Your task to perform on an android device: Open display settings Image 0: 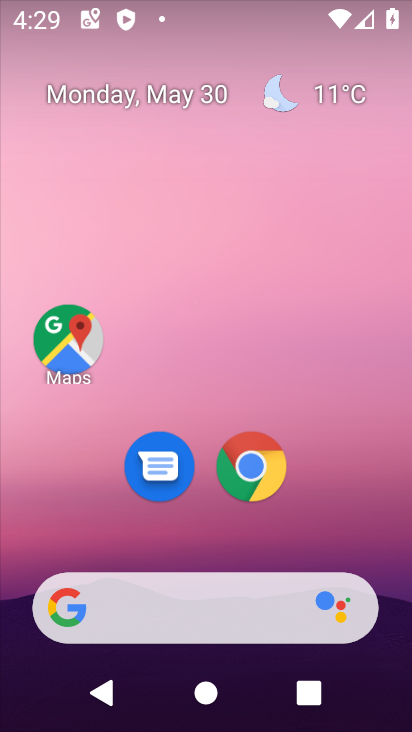
Step 0: drag from (374, 509) to (296, 160)
Your task to perform on an android device: Open display settings Image 1: 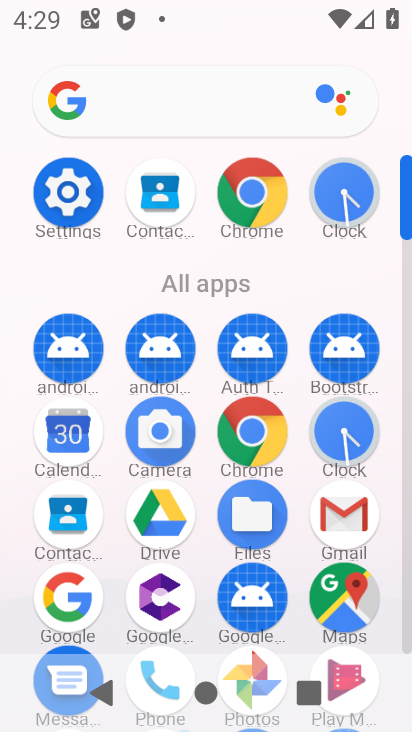
Step 1: click (73, 180)
Your task to perform on an android device: Open display settings Image 2: 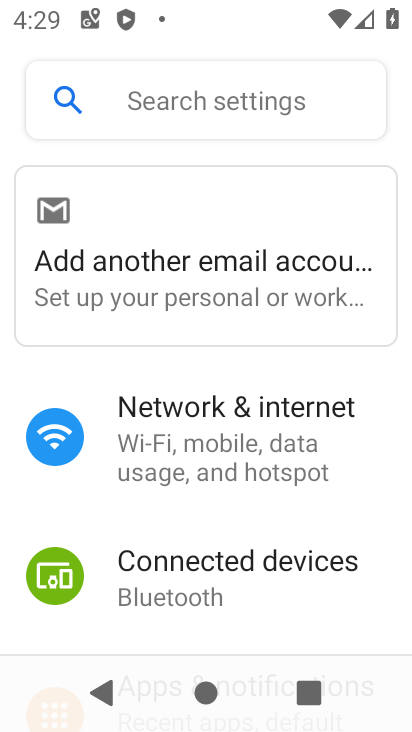
Step 2: drag from (274, 522) to (300, 161)
Your task to perform on an android device: Open display settings Image 3: 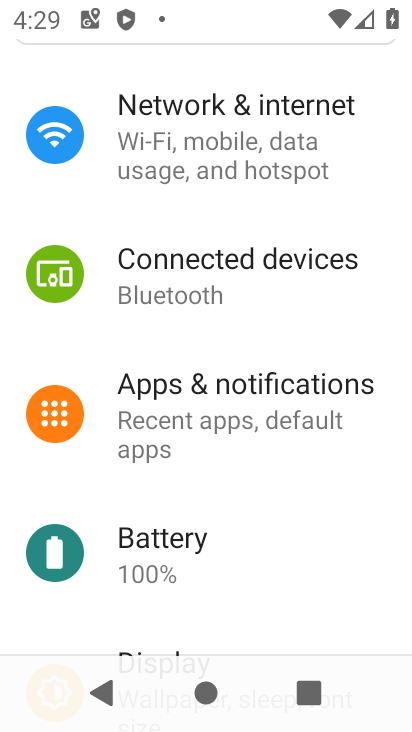
Step 3: drag from (286, 617) to (301, 224)
Your task to perform on an android device: Open display settings Image 4: 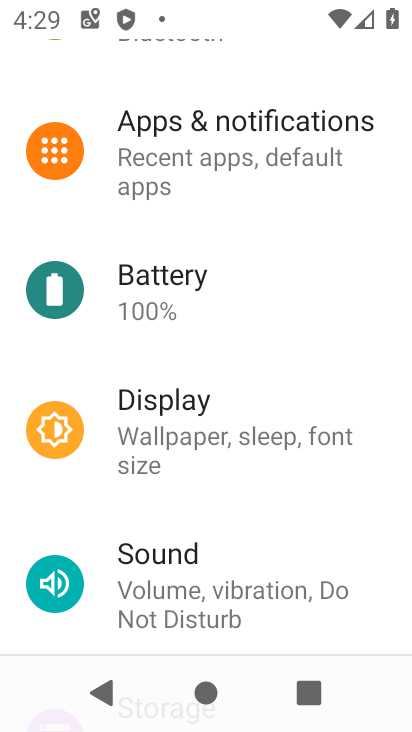
Step 4: click (303, 201)
Your task to perform on an android device: Open display settings Image 5: 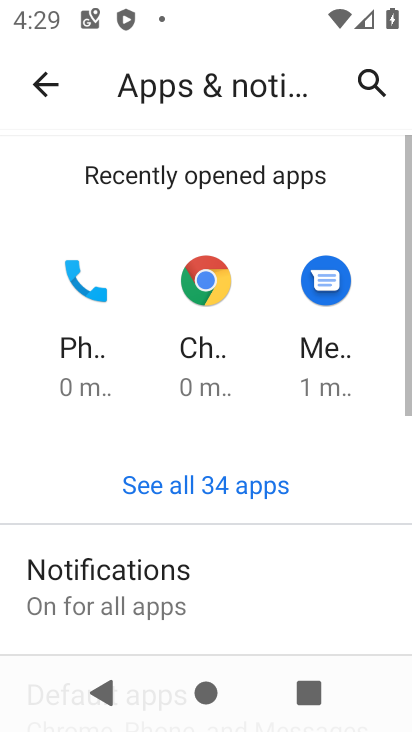
Step 5: click (39, 82)
Your task to perform on an android device: Open display settings Image 6: 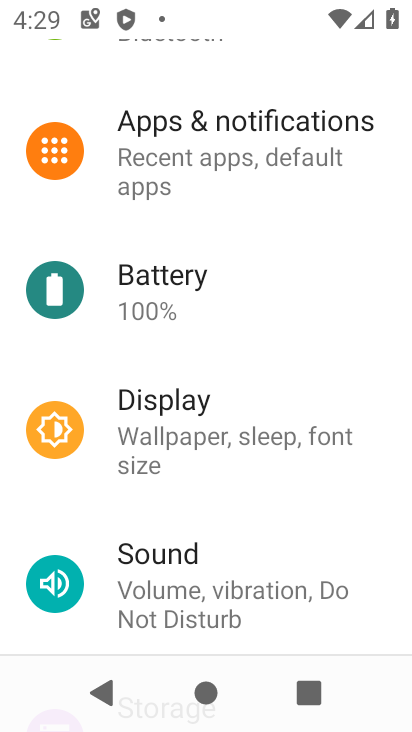
Step 6: click (233, 424)
Your task to perform on an android device: Open display settings Image 7: 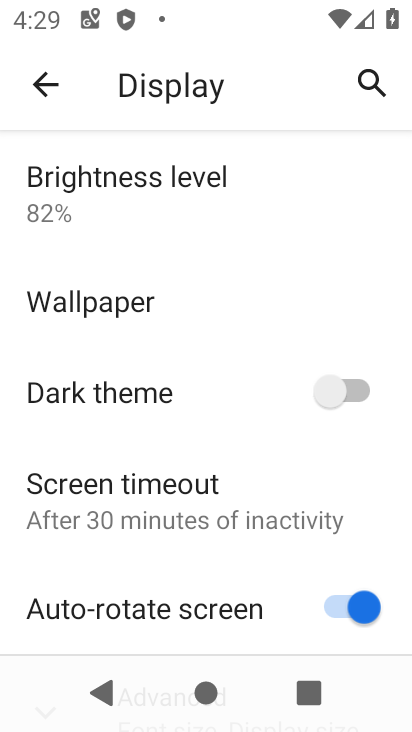
Step 7: task complete